Your task to perform on an android device: install app "Booking.com: Hotels and more" Image 0: 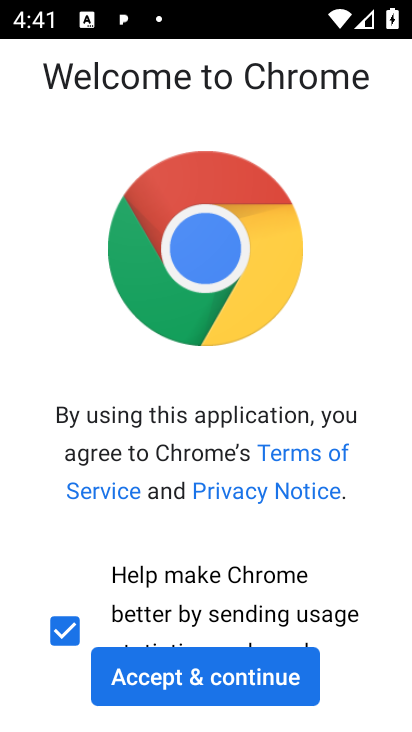
Step 0: press home button
Your task to perform on an android device: install app "Booking.com: Hotels and more" Image 1: 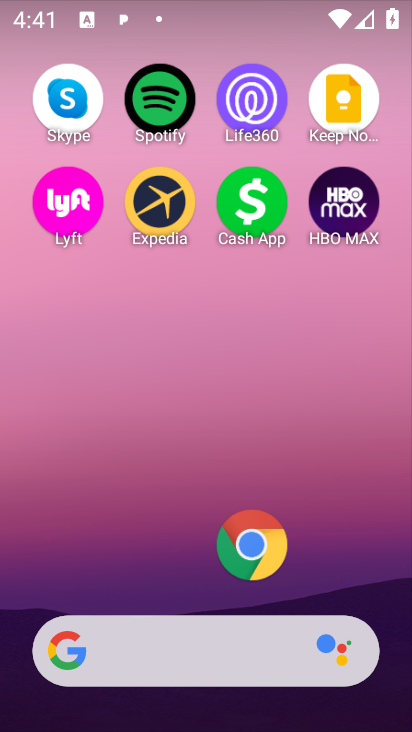
Step 1: drag from (108, 602) to (201, 11)
Your task to perform on an android device: install app "Booking.com: Hotels and more" Image 2: 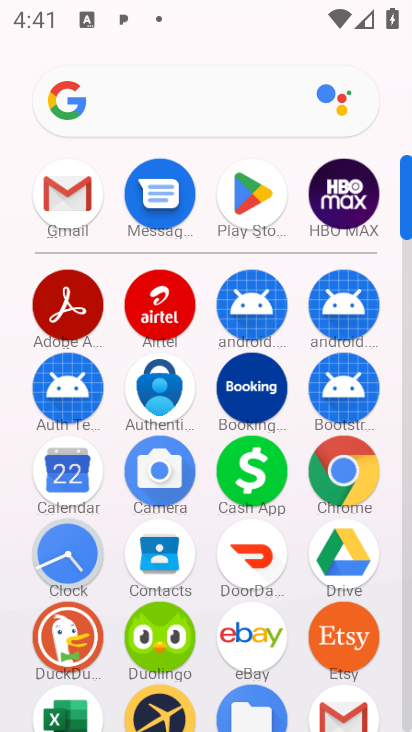
Step 2: click (234, 192)
Your task to perform on an android device: install app "Booking.com: Hotels and more" Image 3: 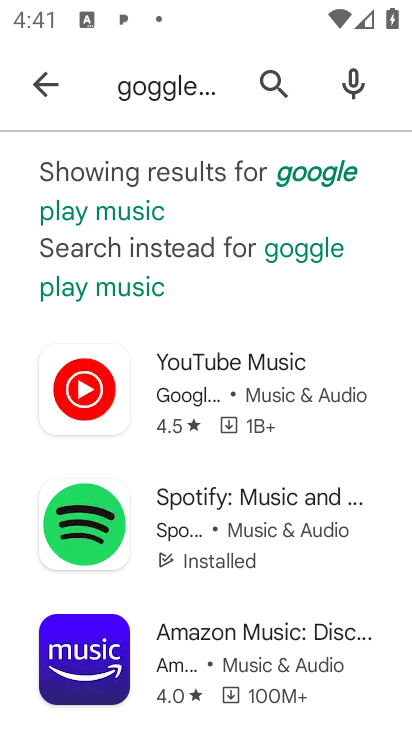
Step 3: click (244, 74)
Your task to perform on an android device: install app "Booking.com: Hotels and more" Image 4: 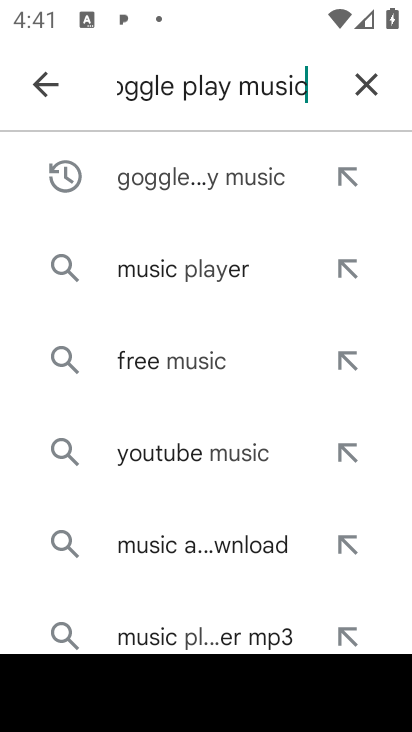
Step 4: click (358, 76)
Your task to perform on an android device: install app "Booking.com: Hotels and more" Image 5: 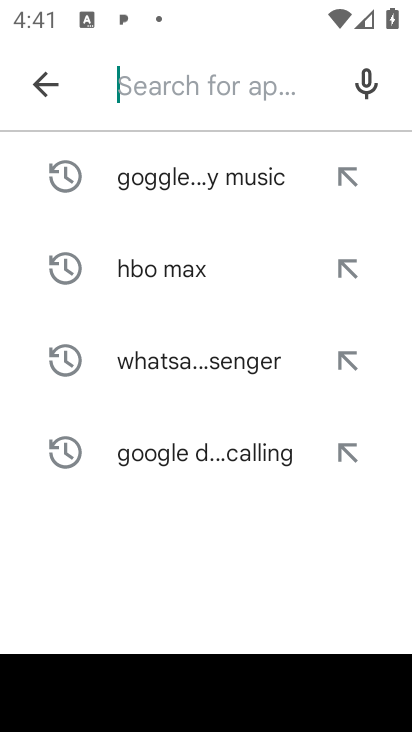
Step 5: click (128, 93)
Your task to perform on an android device: install app "Booking.com: Hotels and more" Image 6: 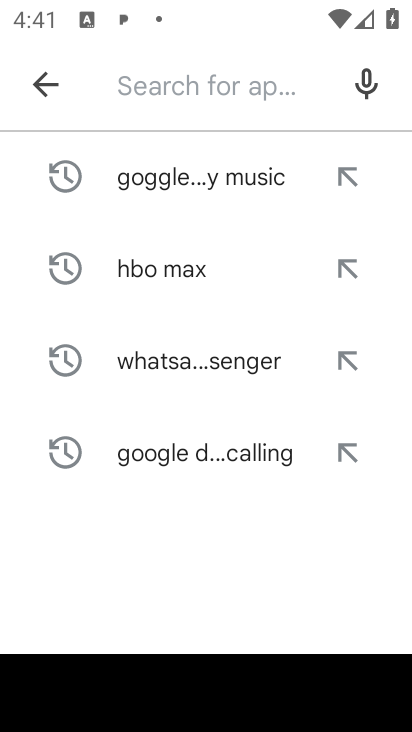
Step 6: type "booking.com"
Your task to perform on an android device: install app "Booking.com: Hotels and more" Image 7: 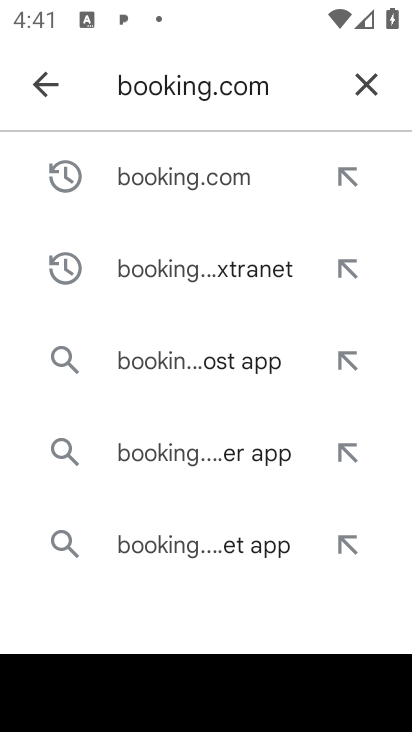
Step 7: click (213, 175)
Your task to perform on an android device: install app "Booking.com: Hotels and more" Image 8: 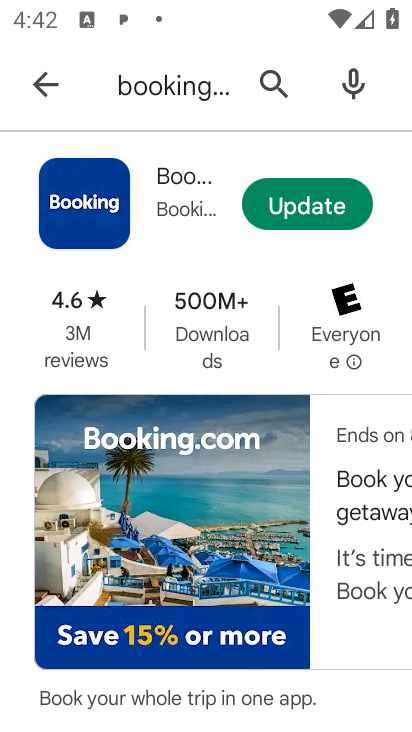
Step 8: task complete